Your task to perform on an android device: Find coffee shops on Maps Image 0: 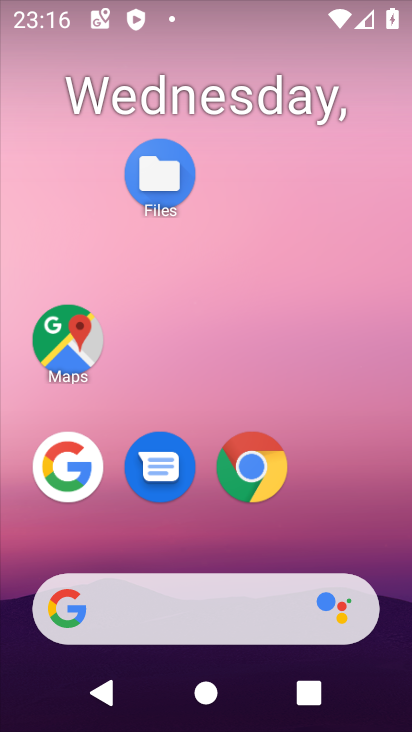
Step 0: task complete